Your task to perform on an android device: See recent photos Image 0: 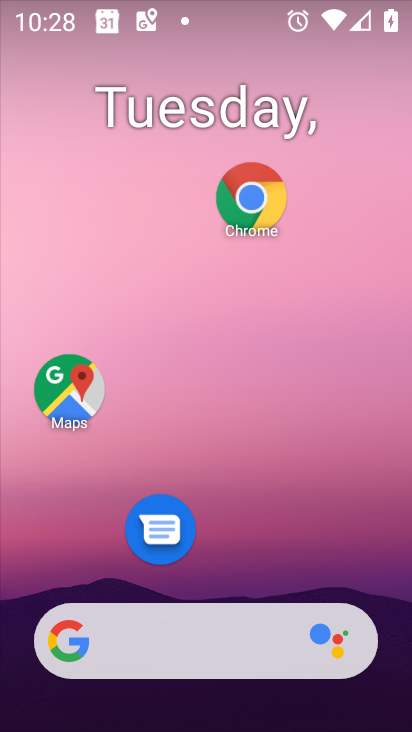
Step 0: drag from (342, 533) to (388, 136)
Your task to perform on an android device: See recent photos Image 1: 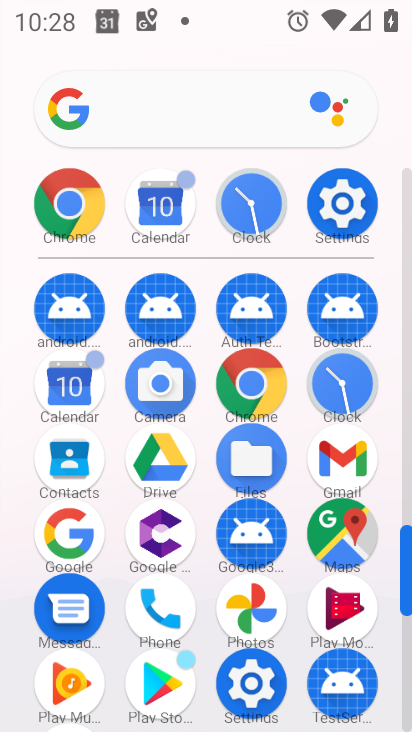
Step 1: click (241, 619)
Your task to perform on an android device: See recent photos Image 2: 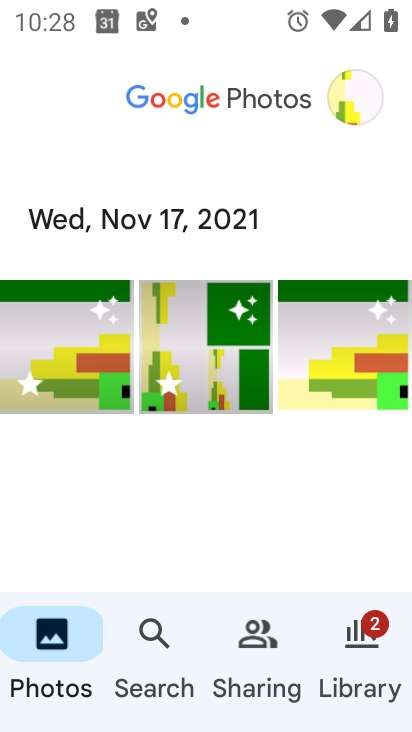
Step 2: task complete